Your task to perform on an android device: Open settings on Google Maps Image 0: 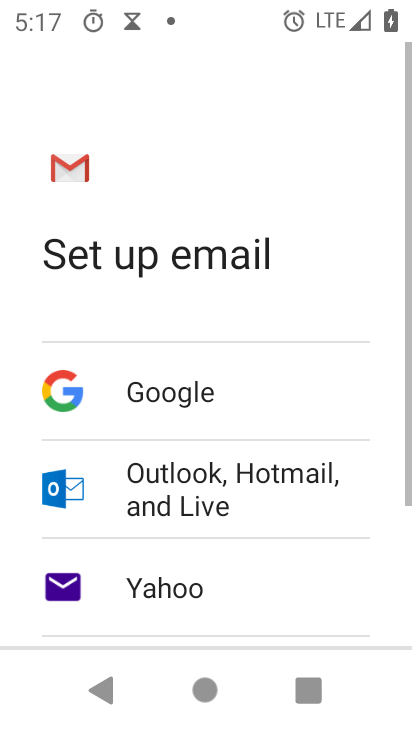
Step 0: press home button
Your task to perform on an android device: Open settings on Google Maps Image 1: 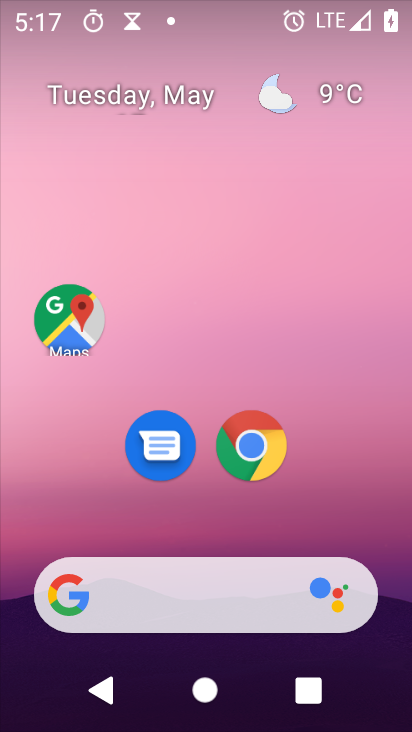
Step 1: drag from (206, 587) to (192, 25)
Your task to perform on an android device: Open settings on Google Maps Image 2: 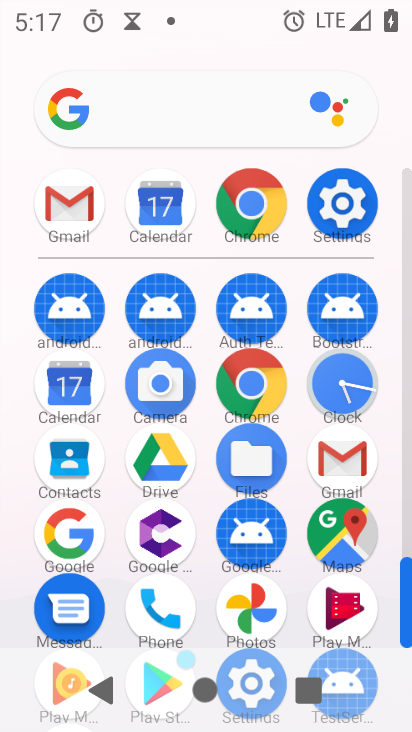
Step 2: click (333, 549)
Your task to perform on an android device: Open settings on Google Maps Image 3: 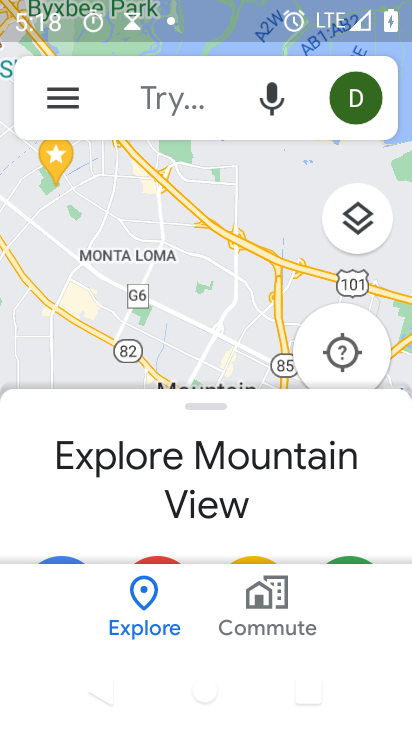
Step 3: click (59, 92)
Your task to perform on an android device: Open settings on Google Maps Image 4: 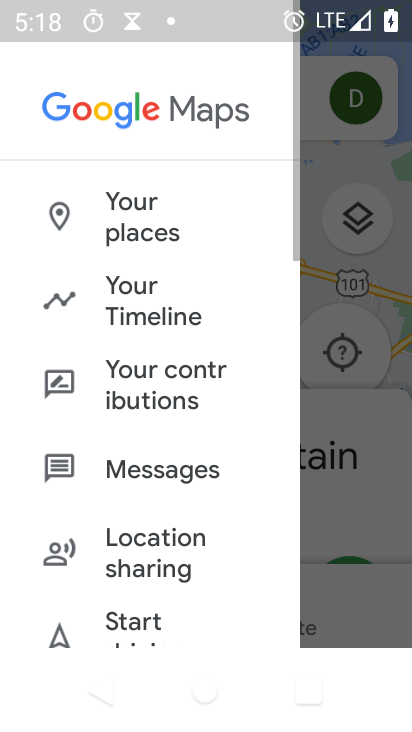
Step 4: click (156, 302)
Your task to perform on an android device: Open settings on Google Maps Image 5: 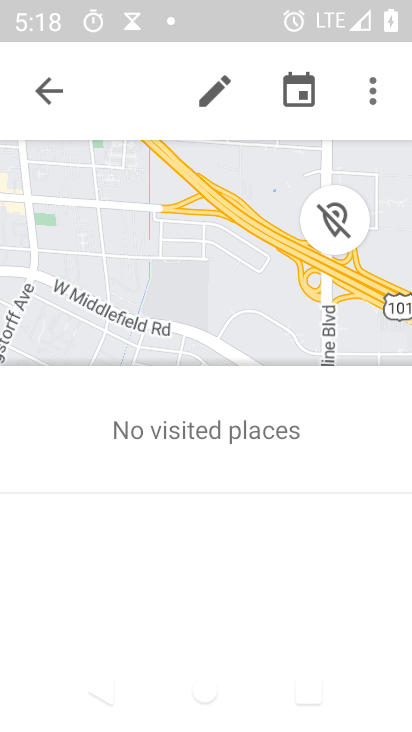
Step 5: click (371, 84)
Your task to perform on an android device: Open settings on Google Maps Image 6: 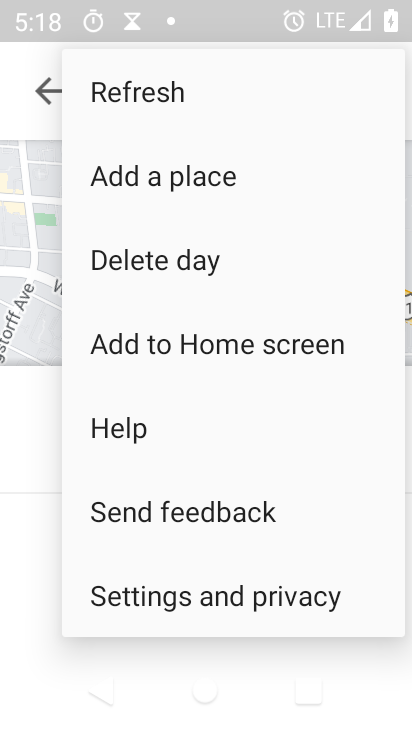
Step 6: click (190, 585)
Your task to perform on an android device: Open settings on Google Maps Image 7: 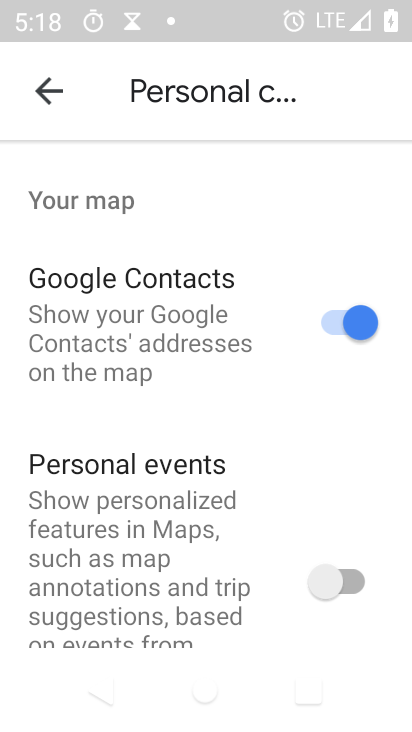
Step 7: task complete